Your task to perform on an android device: turn smart compose on in the gmail app Image 0: 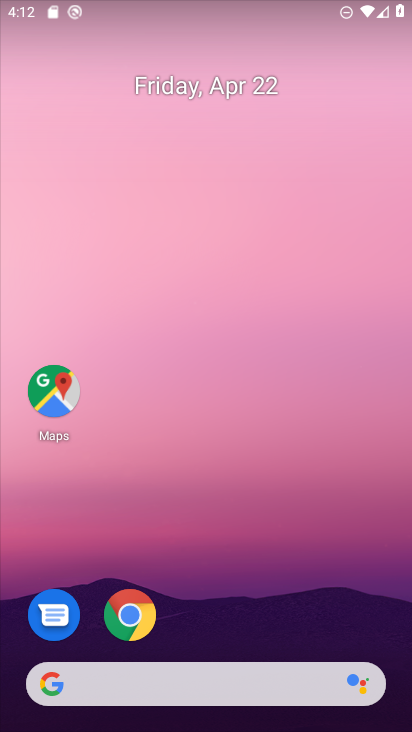
Step 0: drag from (332, 598) to (265, 91)
Your task to perform on an android device: turn smart compose on in the gmail app Image 1: 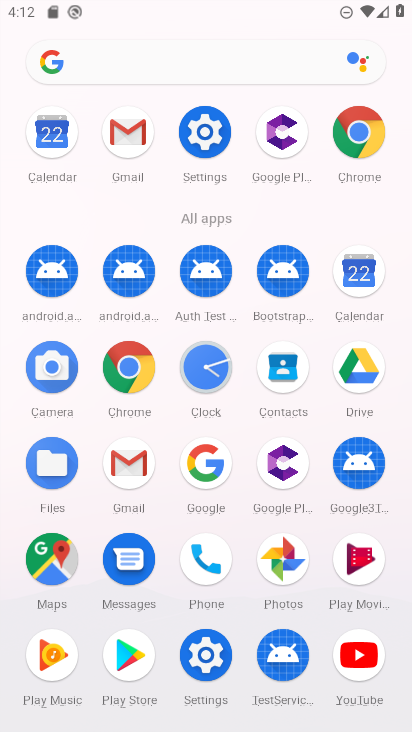
Step 1: click (137, 477)
Your task to perform on an android device: turn smart compose on in the gmail app Image 2: 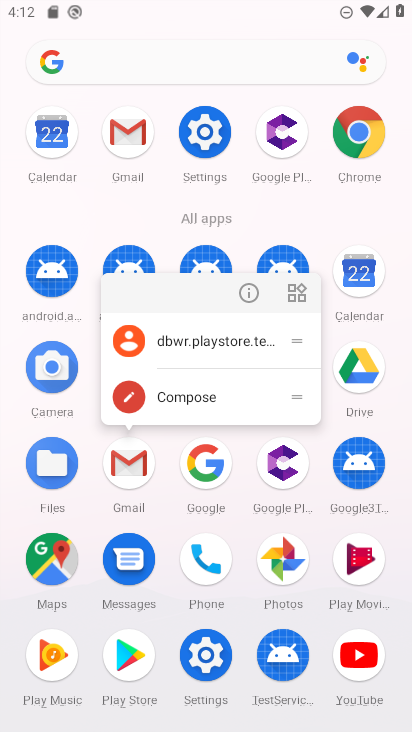
Step 2: click (123, 475)
Your task to perform on an android device: turn smart compose on in the gmail app Image 3: 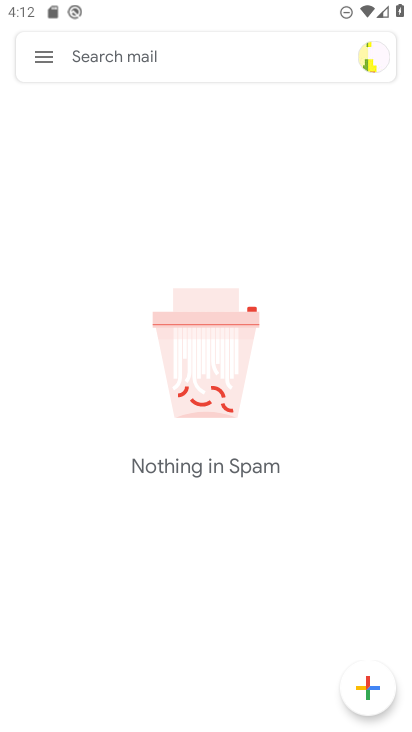
Step 3: click (34, 62)
Your task to perform on an android device: turn smart compose on in the gmail app Image 4: 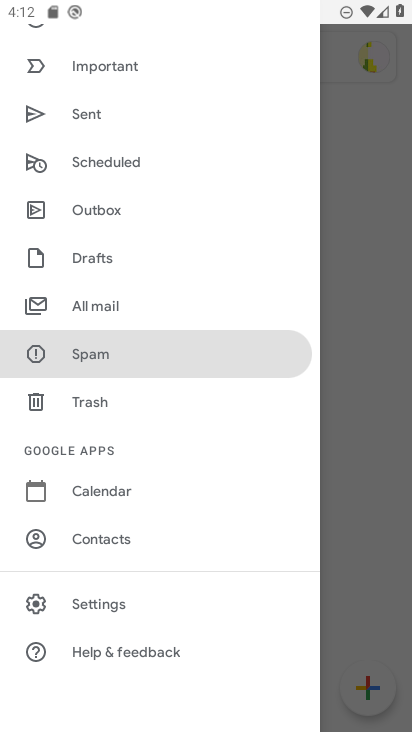
Step 4: click (107, 605)
Your task to perform on an android device: turn smart compose on in the gmail app Image 5: 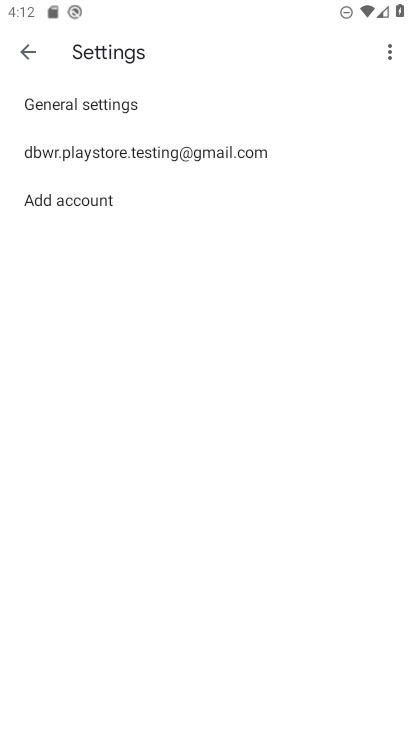
Step 5: click (116, 150)
Your task to perform on an android device: turn smart compose on in the gmail app Image 6: 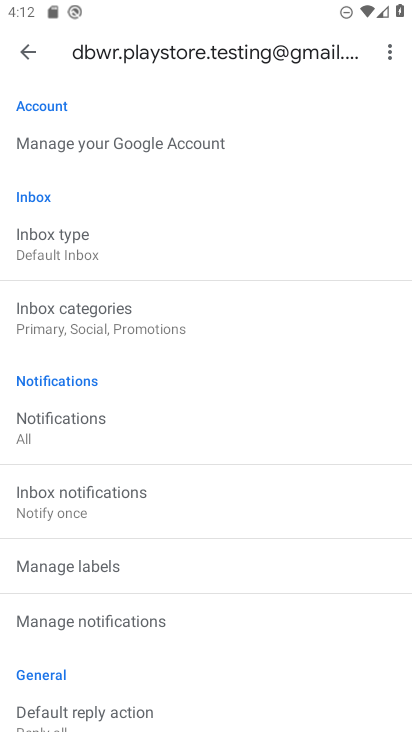
Step 6: task complete